Your task to perform on an android device: Search for sushi restaurants on Maps Image 0: 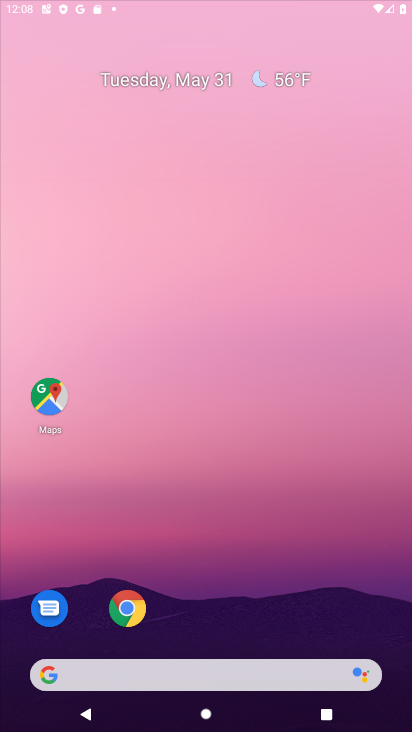
Step 0: press home button
Your task to perform on an android device: Search for sushi restaurants on Maps Image 1: 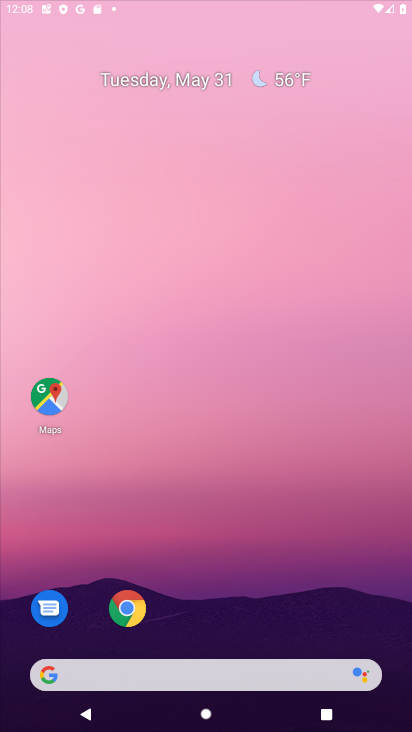
Step 1: click (251, 48)
Your task to perform on an android device: Search for sushi restaurants on Maps Image 2: 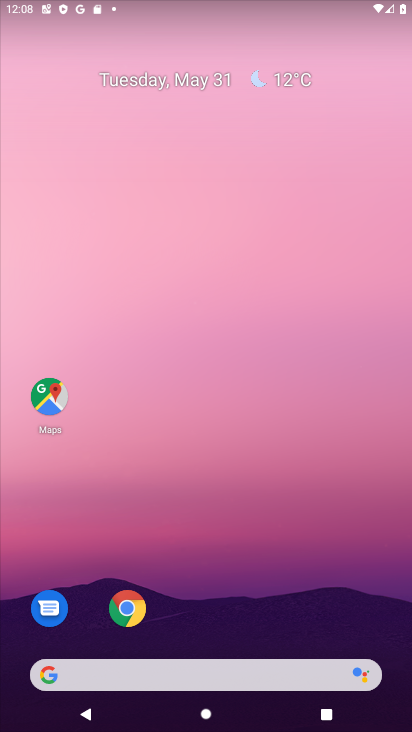
Step 2: click (45, 401)
Your task to perform on an android device: Search for sushi restaurants on Maps Image 3: 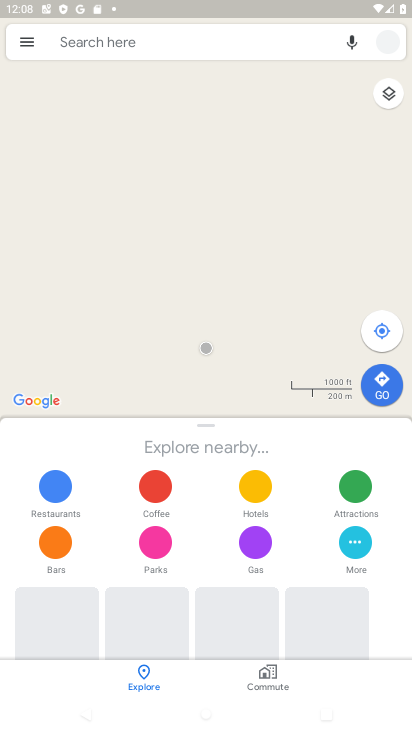
Step 3: click (181, 37)
Your task to perform on an android device: Search for sushi restaurants on Maps Image 4: 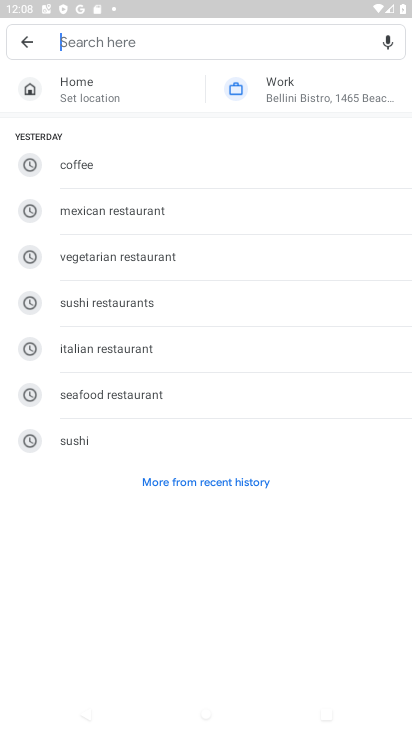
Step 4: click (155, 51)
Your task to perform on an android device: Search for sushi restaurants on Maps Image 5: 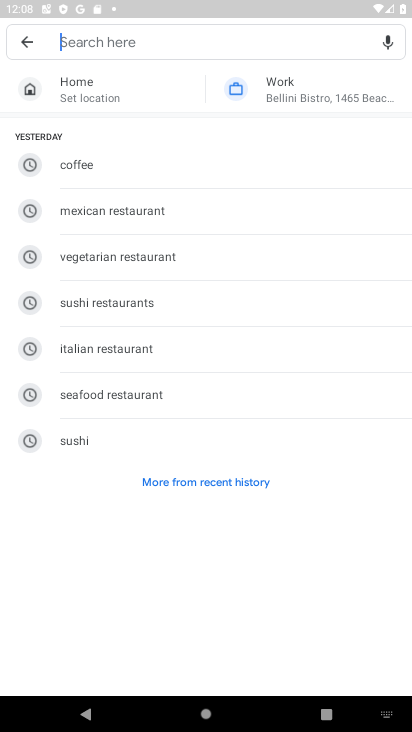
Step 5: click (135, 303)
Your task to perform on an android device: Search for sushi restaurants on Maps Image 6: 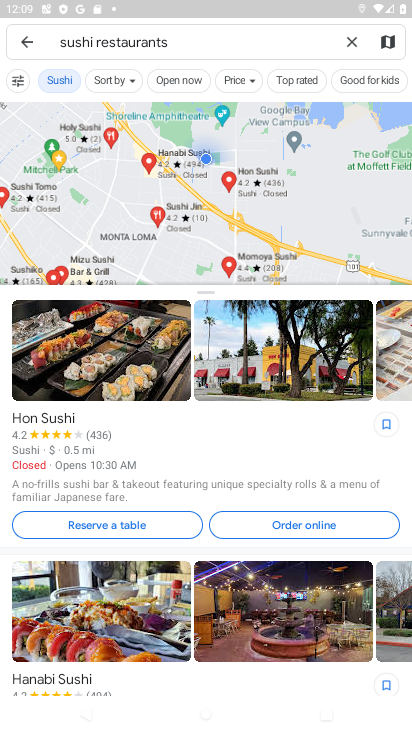
Step 6: task complete